Your task to perform on an android device: open device folders in google photos Image 0: 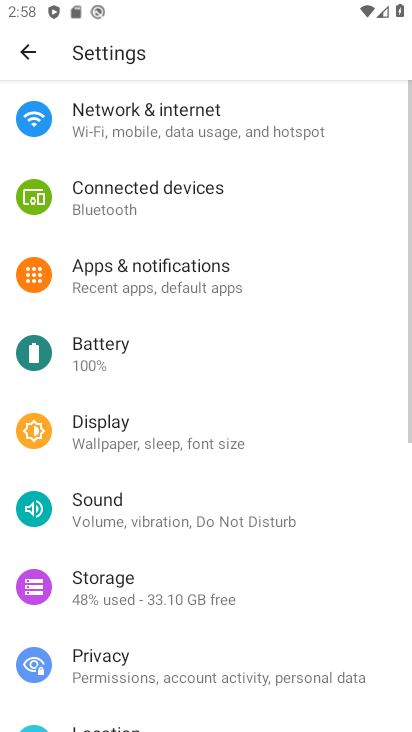
Step 0: press home button
Your task to perform on an android device: open device folders in google photos Image 1: 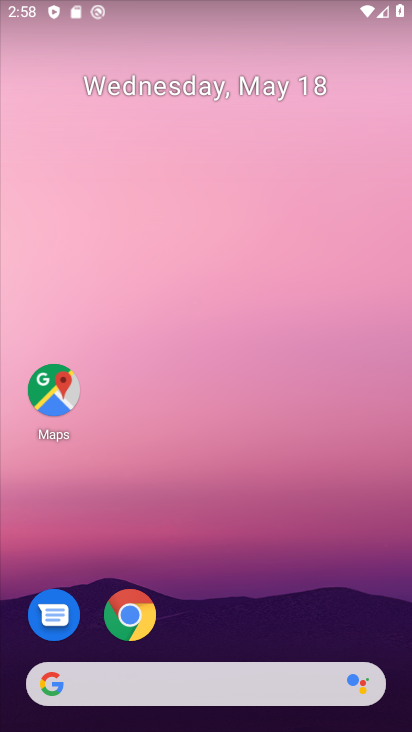
Step 1: drag from (202, 644) to (310, 151)
Your task to perform on an android device: open device folders in google photos Image 2: 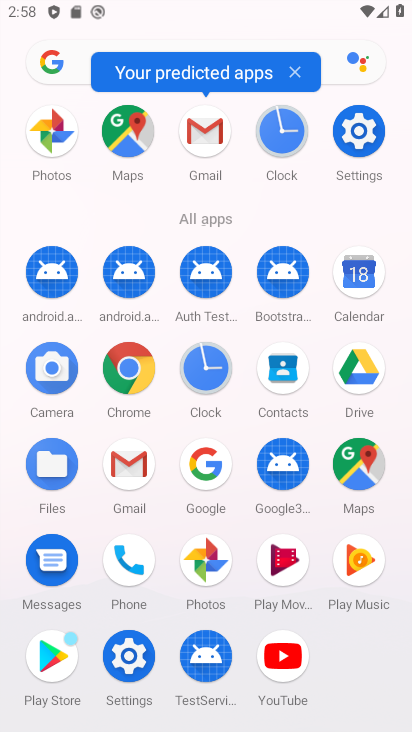
Step 2: click (212, 576)
Your task to perform on an android device: open device folders in google photos Image 3: 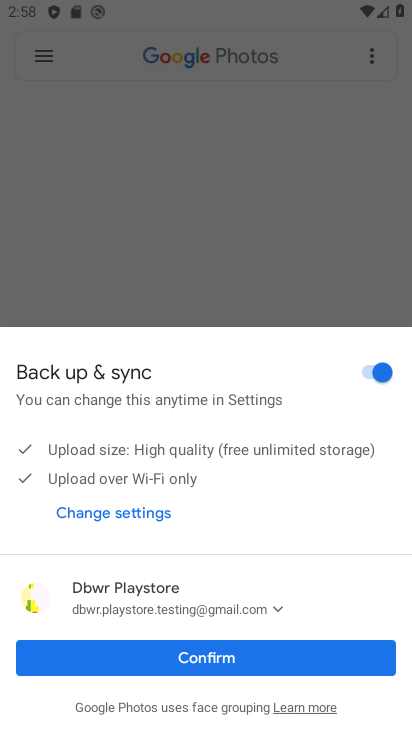
Step 3: click (254, 669)
Your task to perform on an android device: open device folders in google photos Image 4: 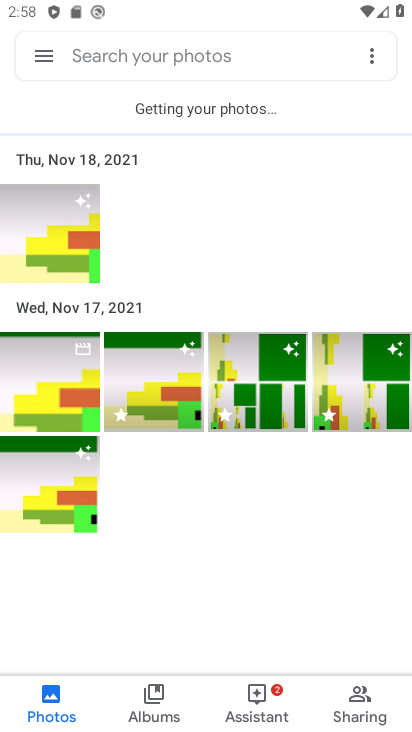
Step 4: click (49, 47)
Your task to perform on an android device: open device folders in google photos Image 5: 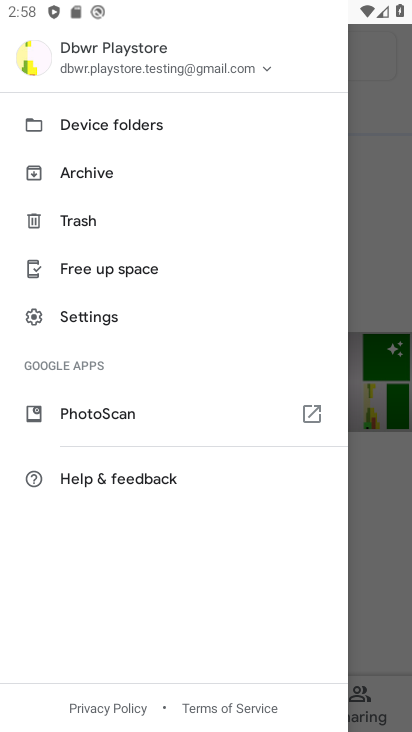
Step 5: click (108, 133)
Your task to perform on an android device: open device folders in google photos Image 6: 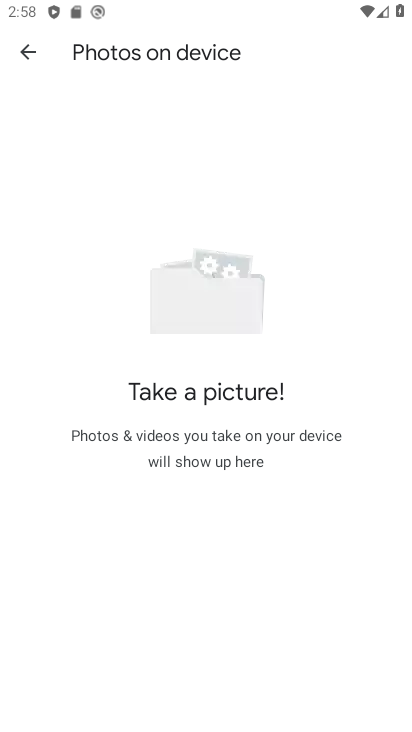
Step 6: task complete